Your task to perform on an android device: How do I get to the nearest Sprint Store? Image 0: 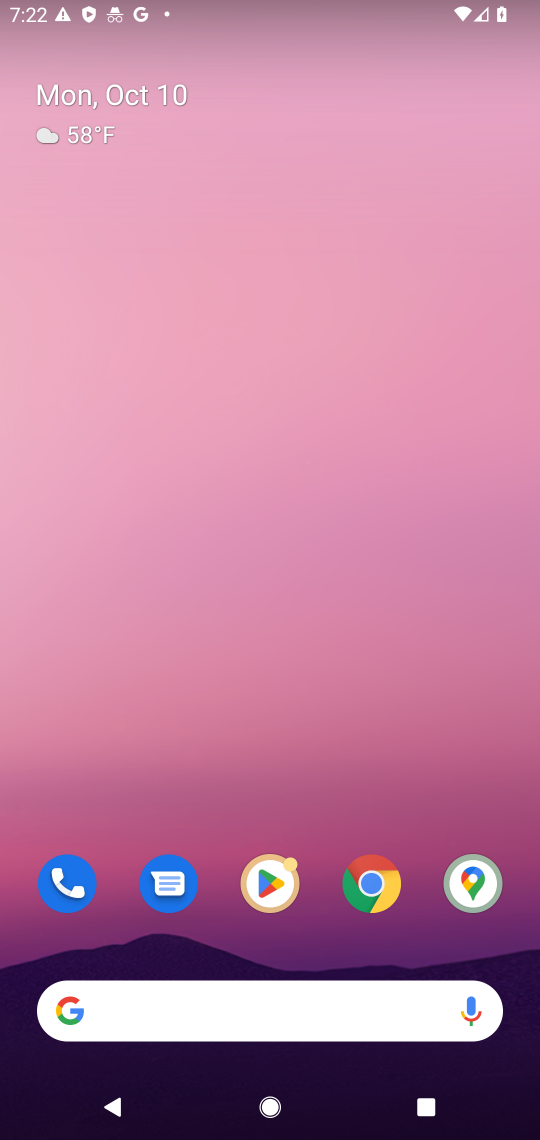
Step 0: drag from (289, 939) to (231, 217)
Your task to perform on an android device: How do I get to the nearest Sprint Store? Image 1: 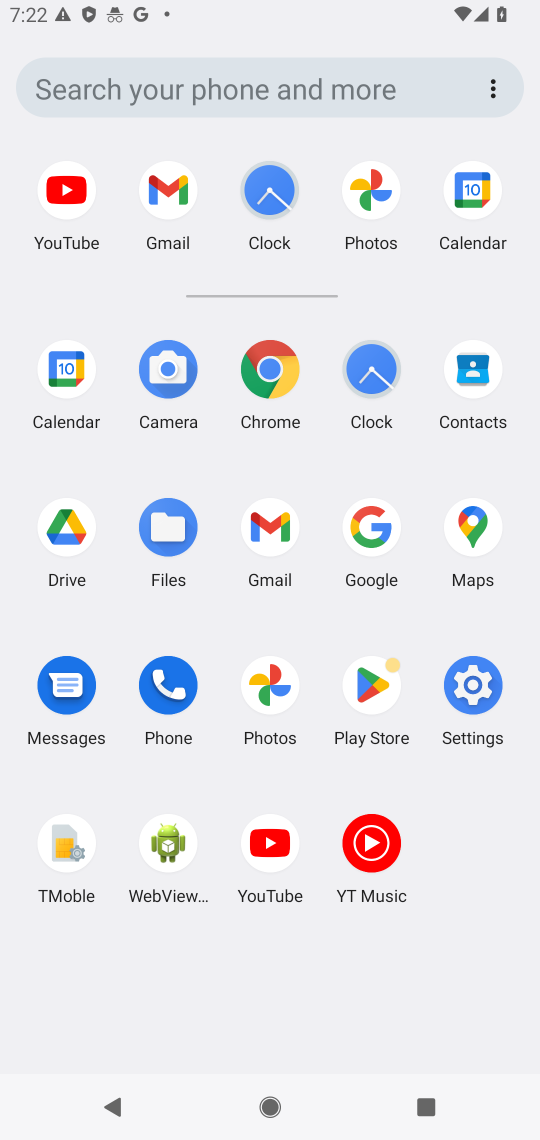
Step 1: click (362, 542)
Your task to perform on an android device: How do I get to the nearest Sprint Store? Image 2: 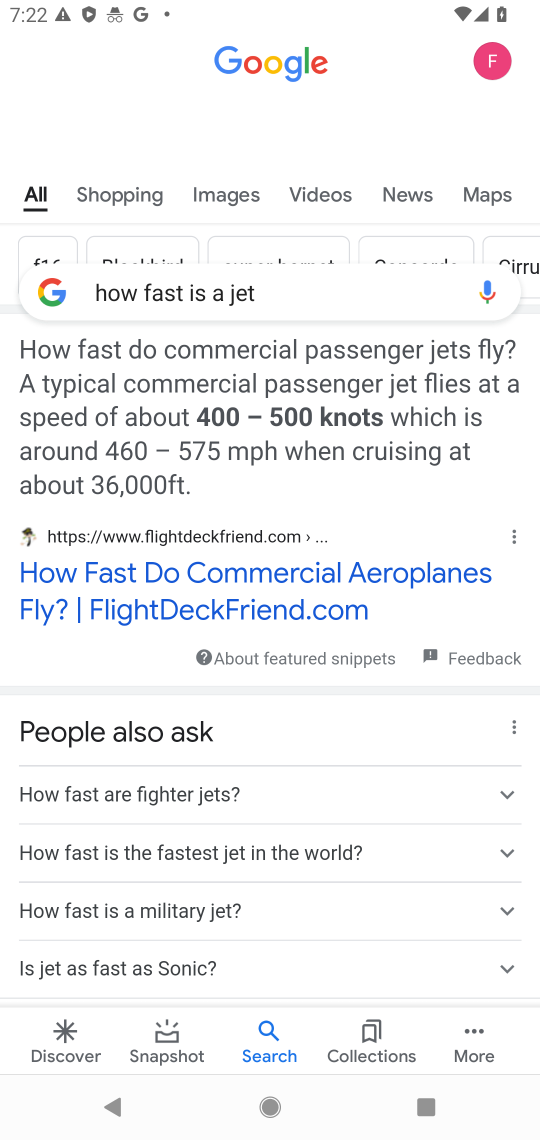
Step 2: click (375, 297)
Your task to perform on an android device: How do I get to the nearest Sprint Store? Image 3: 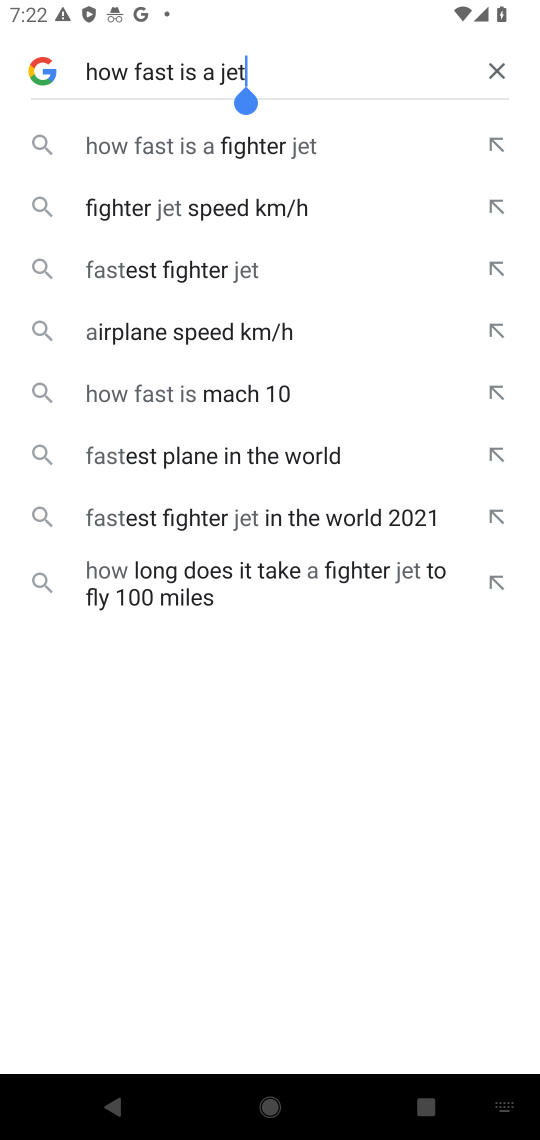
Step 3: click (503, 81)
Your task to perform on an android device: How do I get to the nearest Sprint Store? Image 4: 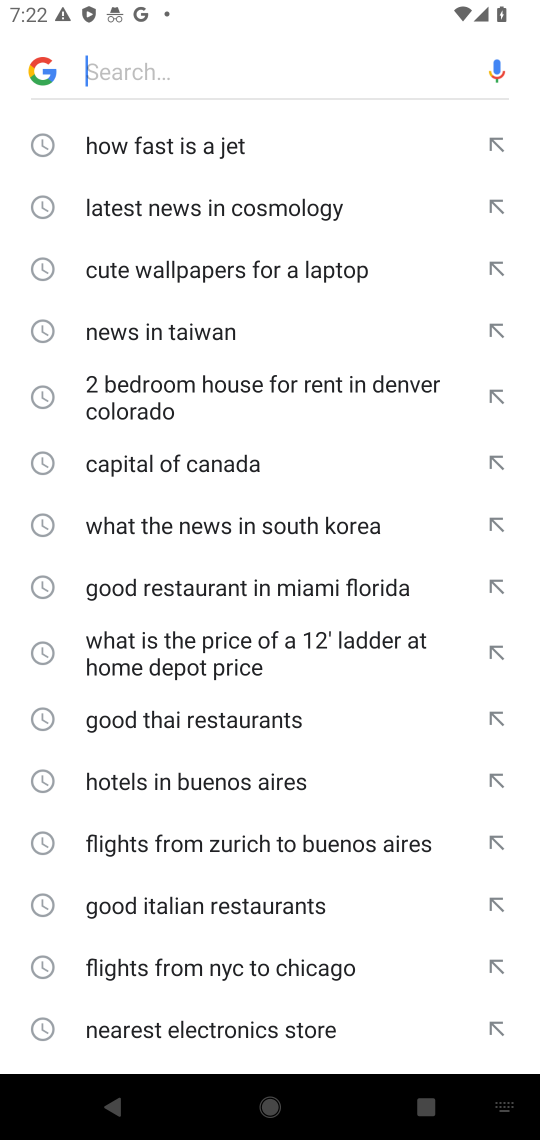
Step 4: type " "
Your task to perform on an android device: How do I get to the nearest Sprint Store? Image 5: 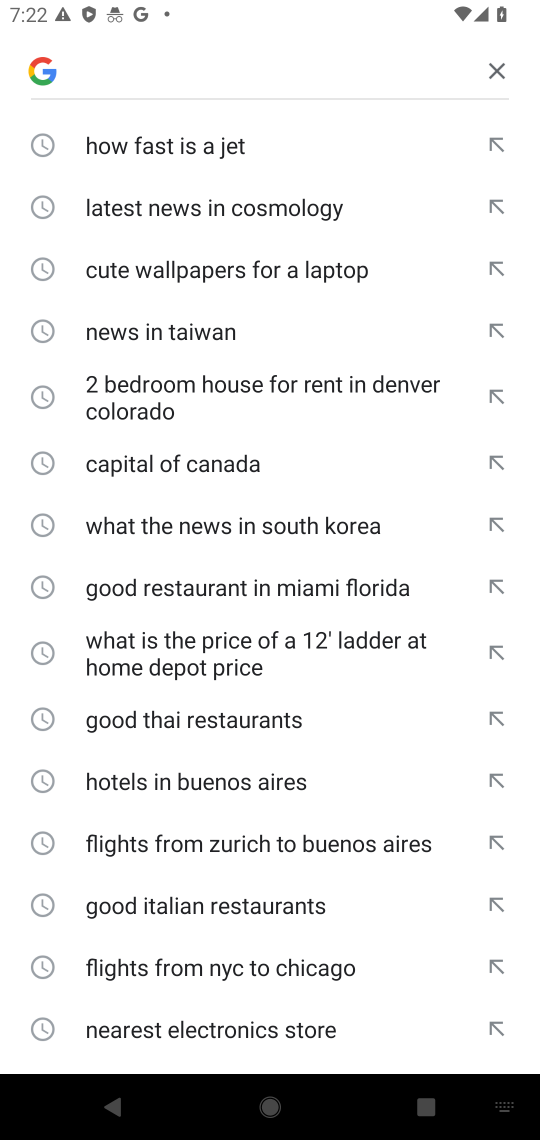
Step 5: type "nearest Sprint Store"
Your task to perform on an android device: How do I get to the nearest Sprint Store? Image 6: 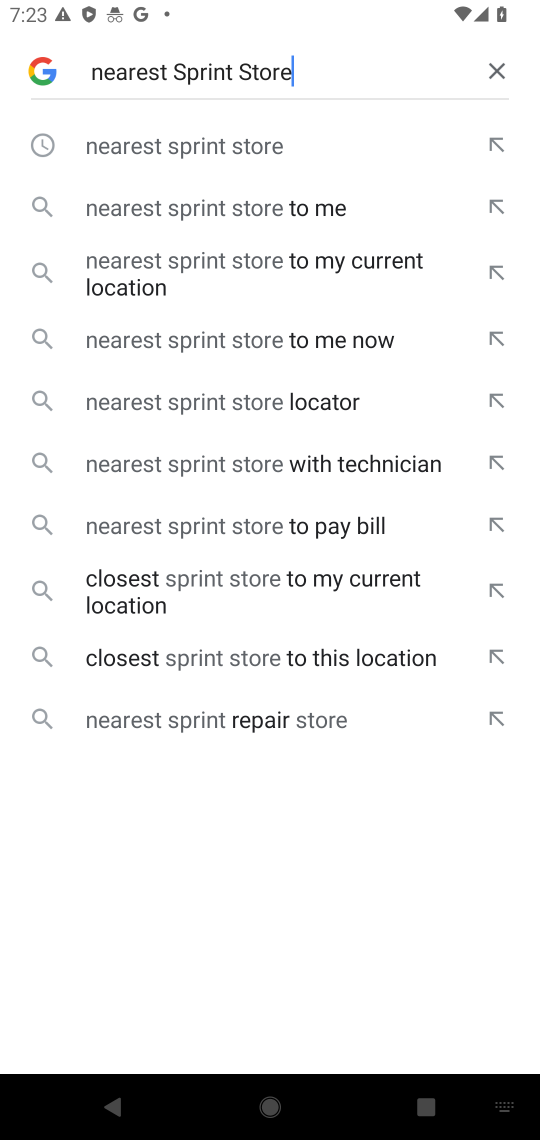
Step 6: click (326, 150)
Your task to perform on an android device: How do I get to the nearest Sprint Store? Image 7: 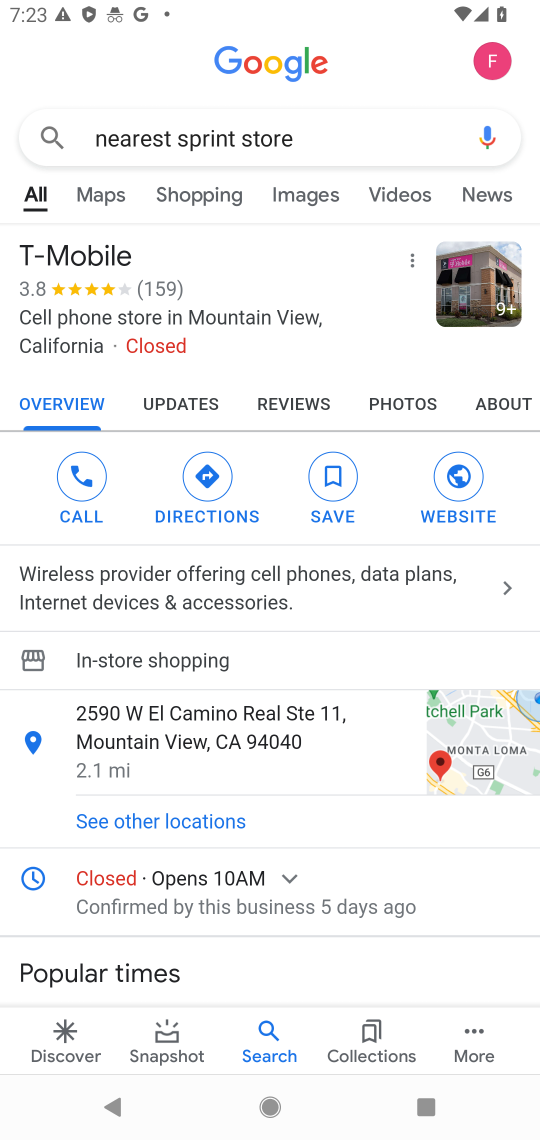
Step 7: click (219, 490)
Your task to perform on an android device: How do I get to the nearest Sprint Store? Image 8: 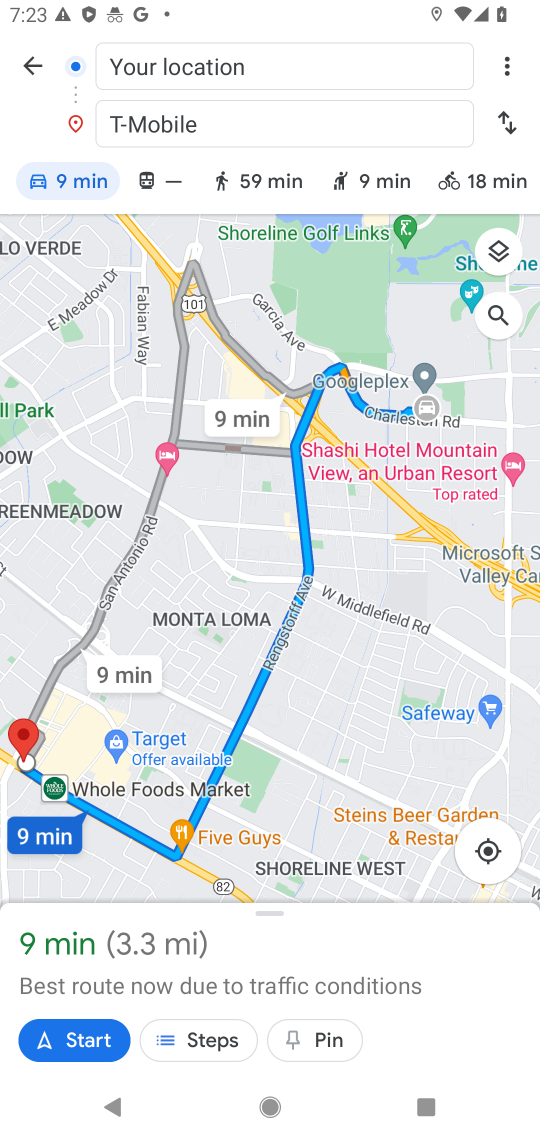
Step 8: task complete